Your task to perform on an android device: Open the stopwatch Image 0: 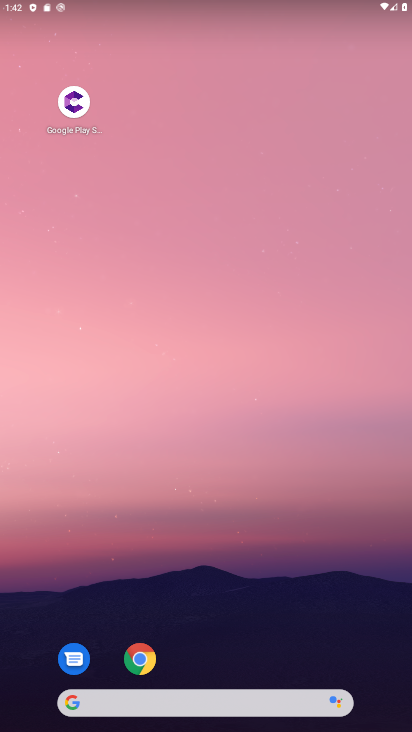
Step 0: drag from (379, 638) to (326, 149)
Your task to perform on an android device: Open the stopwatch Image 1: 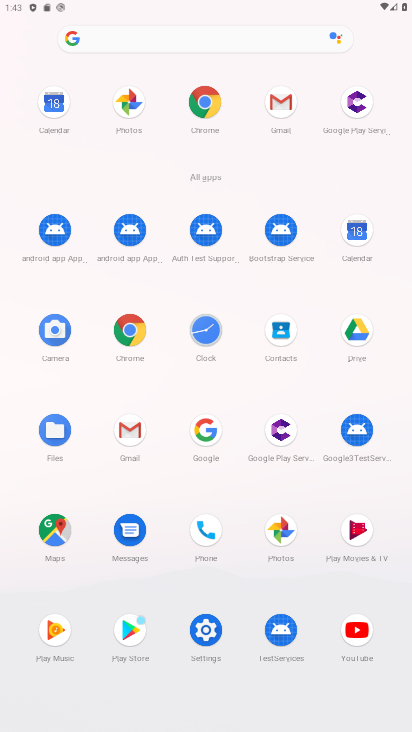
Step 1: click (201, 323)
Your task to perform on an android device: Open the stopwatch Image 2: 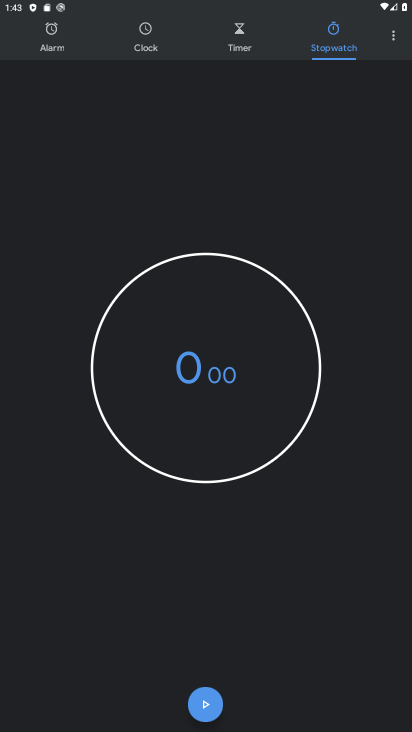
Step 2: task complete